Your task to perform on an android device: Add amazon basics triple a to the cart on bestbuy.com Image 0: 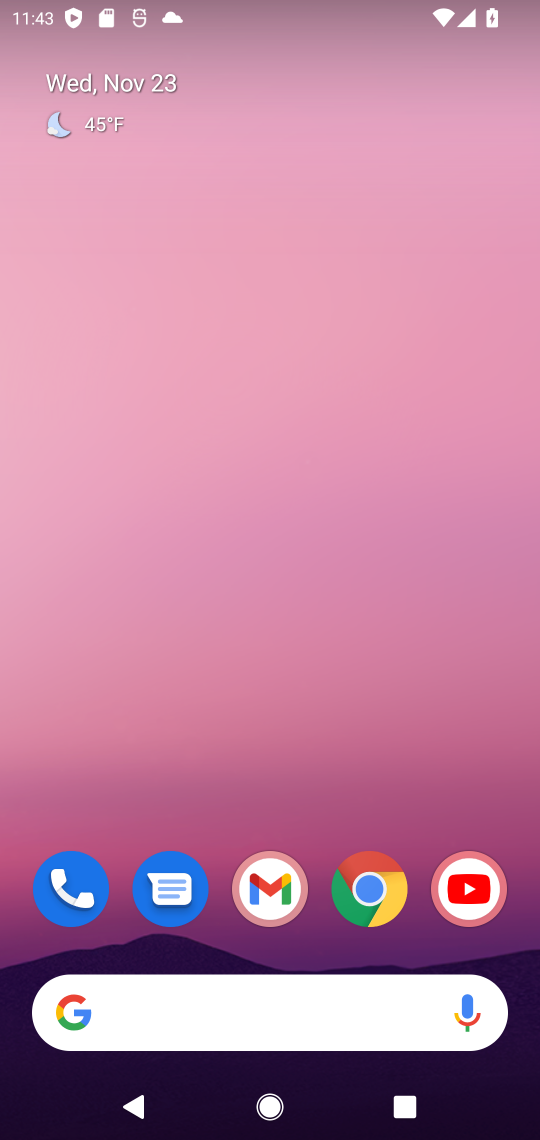
Step 0: click (377, 894)
Your task to perform on an android device: Add amazon basics triple a to the cart on bestbuy.com Image 1: 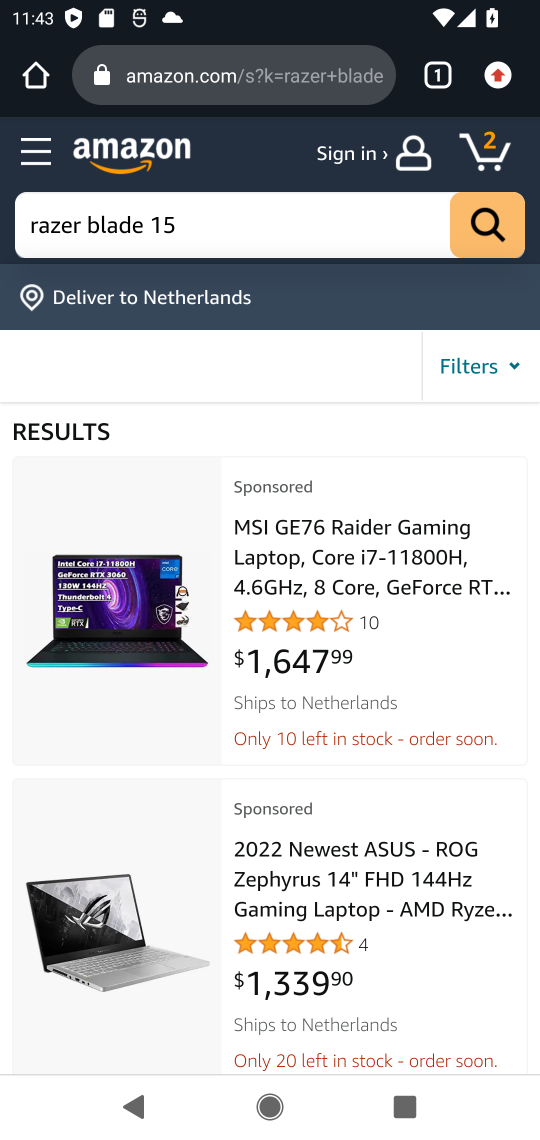
Step 1: click (210, 83)
Your task to perform on an android device: Add amazon basics triple a to the cart on bestbuy.com Image 2: 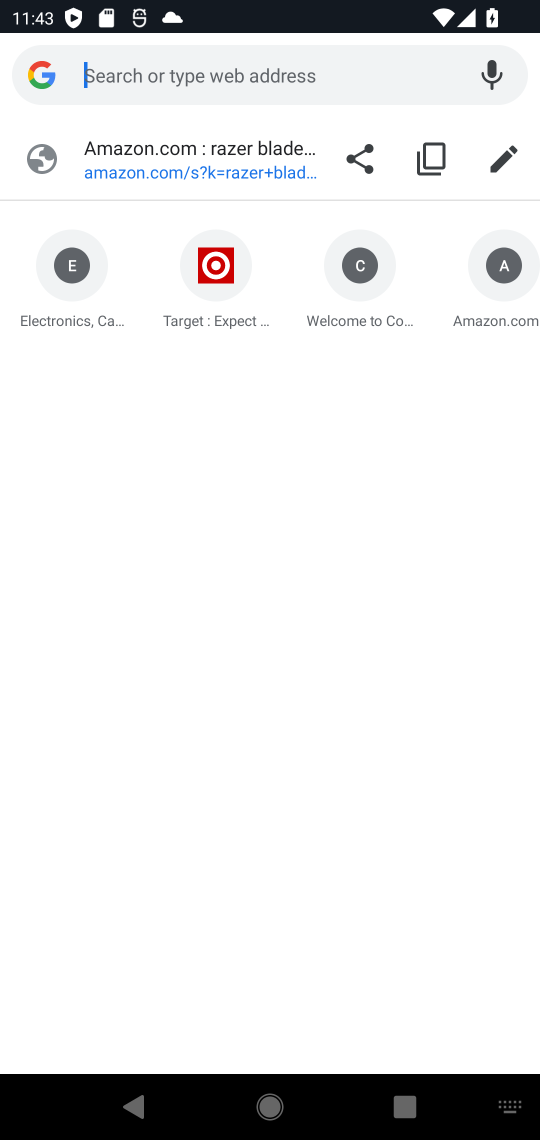
Step 2: type "bestbuy.com"
Your task to perform on an android device: Add amazon basics triple a to the cart on bestbuy.com Image 3: 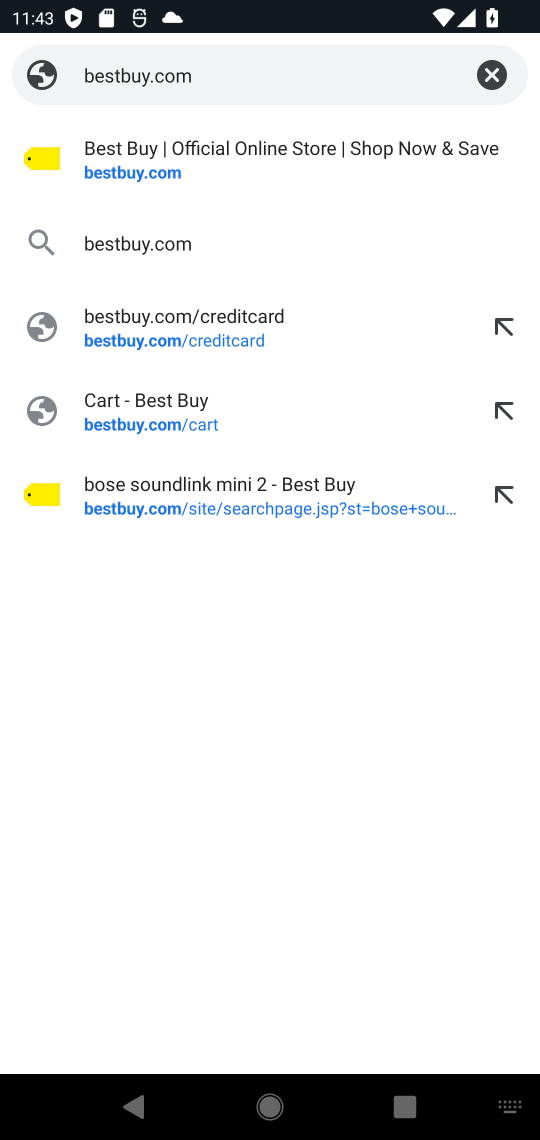
Step 3: click (109, 171)
Your task to perform on an android device: Add amazon basics triple a to the cart on bestbuy.com Image 4: 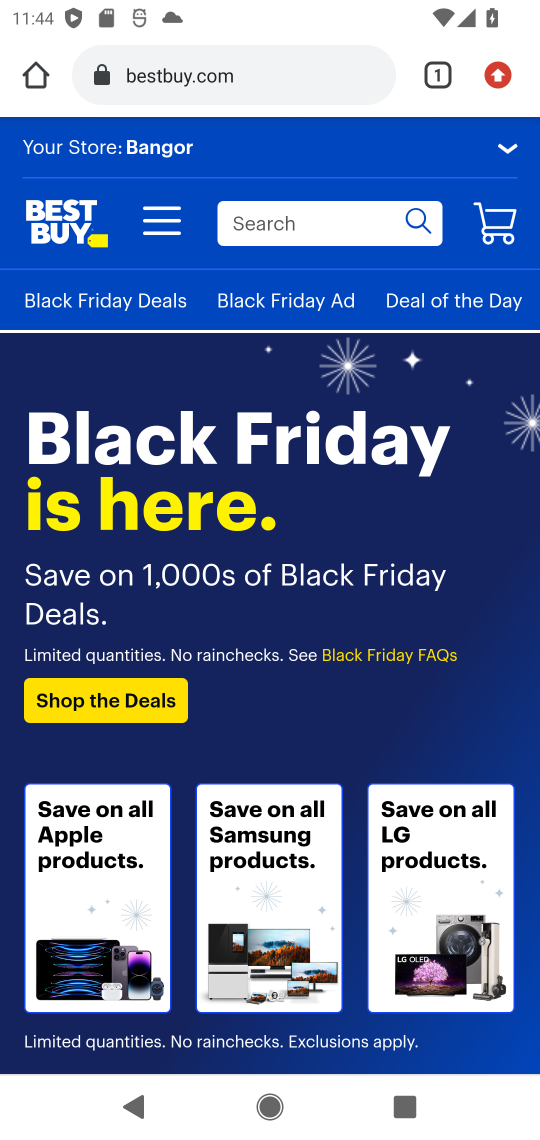
Step 4: click (321, 234)
Your task to perform on an android device: Add amazon basics triple a to the cart on bestbuy.com Image 5: 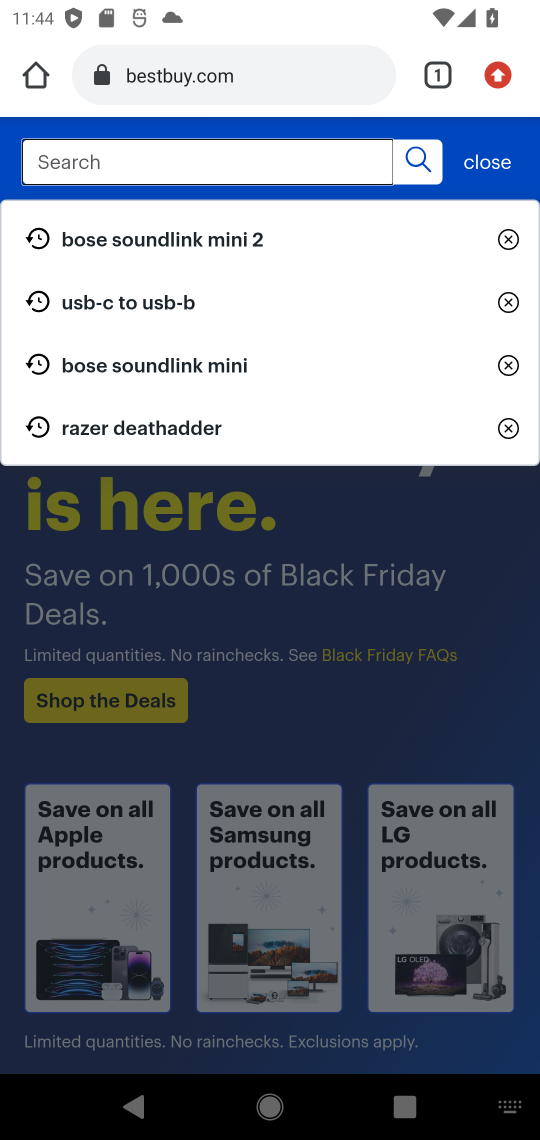
Step 5: type "amazon basics triple a"
Your task to perform on an android device: Add amazon basics triple a to the cart on bestbuy.com Image 6: 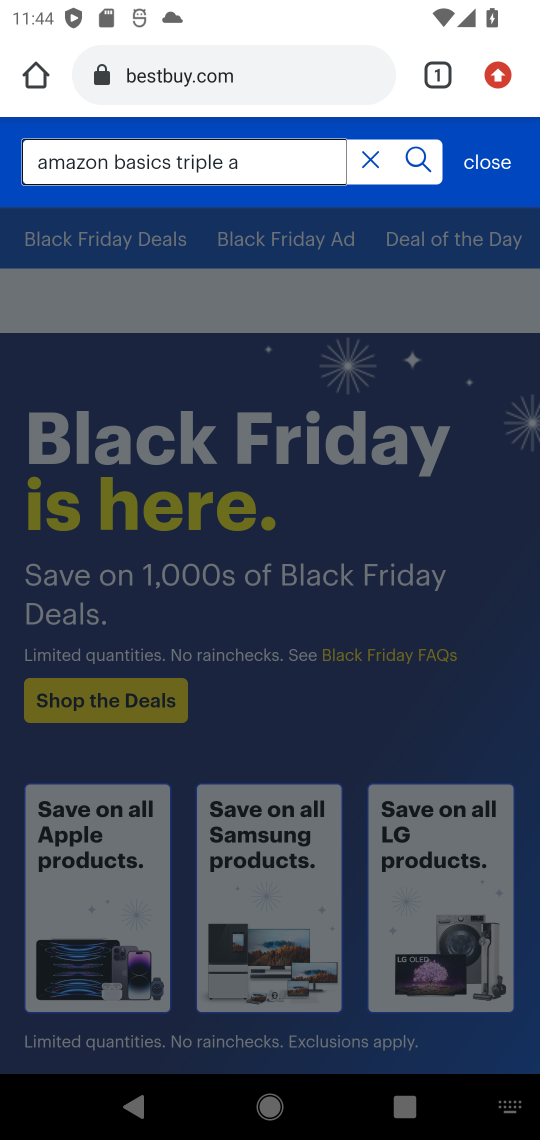
Step 6: click (418, 165)
Your task to perform on an android device: Add amazon basics triple a to the cart on bestbuy.com Image 7: 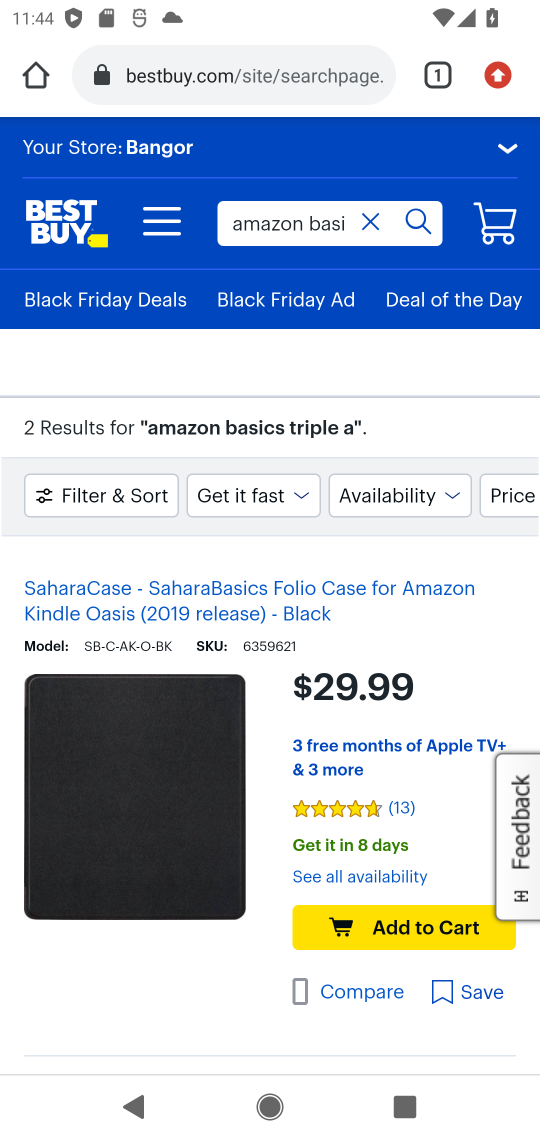
Step 7: task complete